Your task to perform on an android device: Go to ESPN.com Image 0: 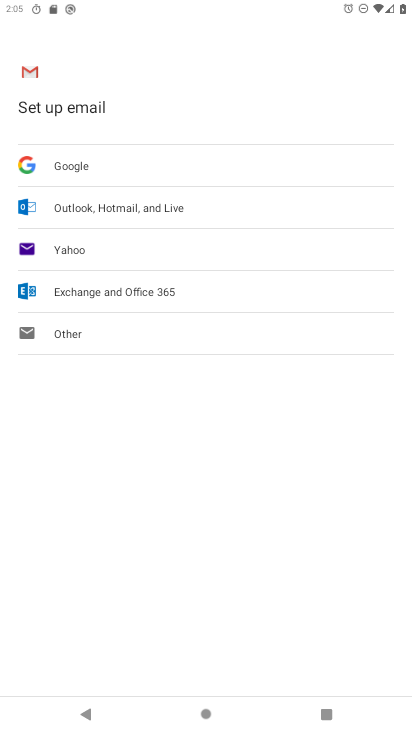
Step 0: press home button
Your task to perform on an android device: Go to ESPN.com Image 1: 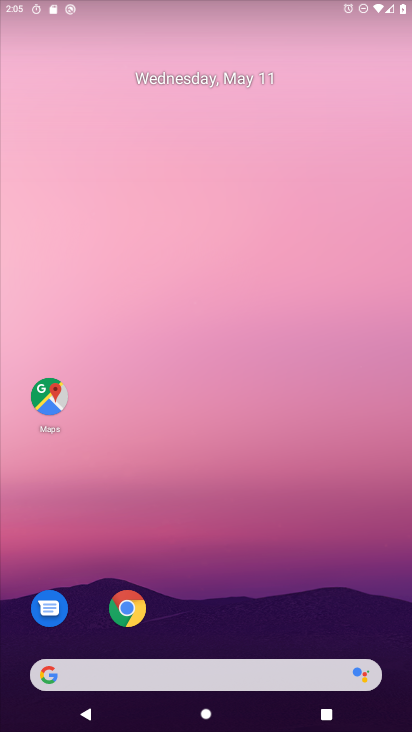
Step 1: drag from (264, 639) to (286, 3)
Your task to perform on an android device: Go to ESPN.com Image 2: 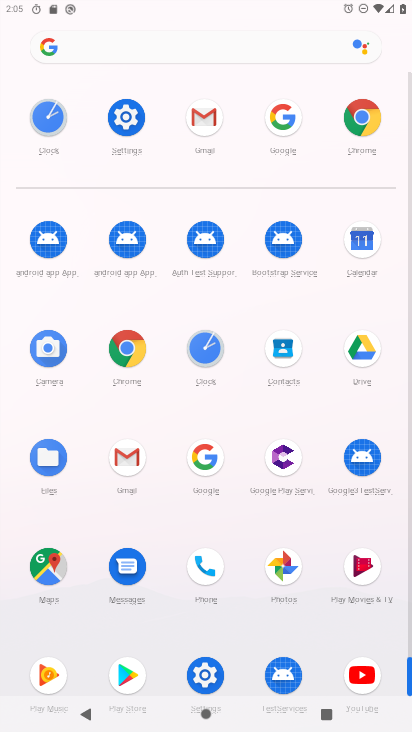
Step 2: click (364, 126)
Your task to perform on an android device: Go to ESPN.com Image 3: 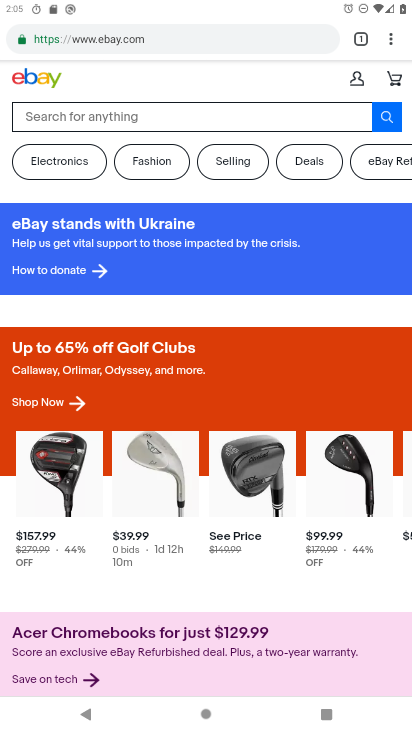
Step 3: click (202, 40)
Your task to perform on an android device: Go to ESPN.com Image 4: 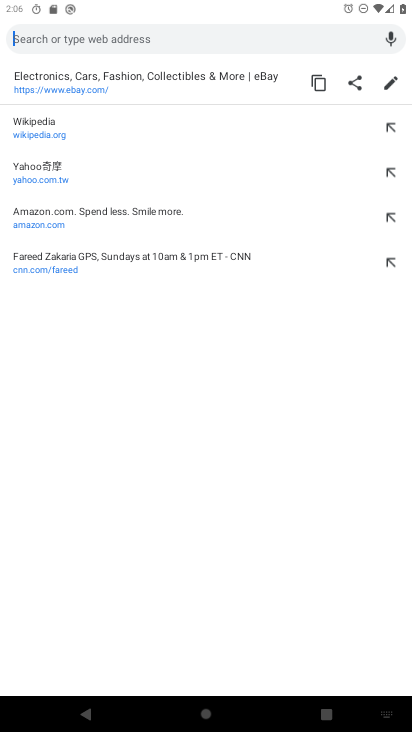
Step 4: type "espn.com"
Your task to perform on an android device: Go to ESPN.com Image 5: 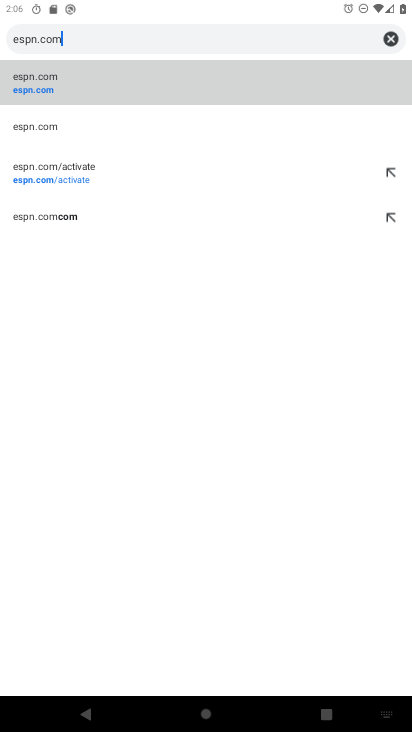
Step 5: click (163, 101)
Your task to perform on an android device: Go to ESPN.com Image 6: 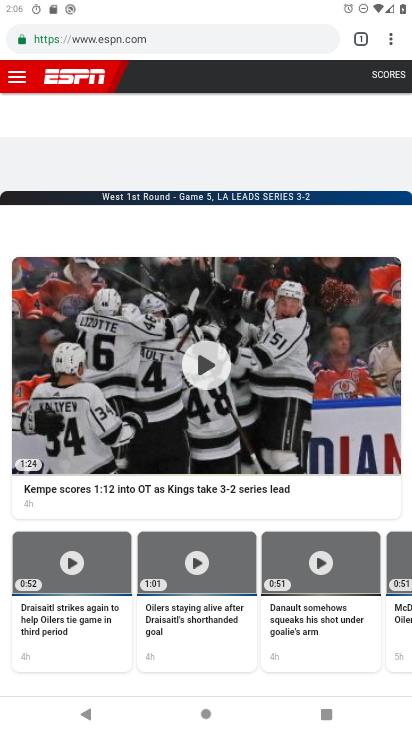
Step 6: task complete